Your task to perform on an android device: Show me productivity apps on the Play Store Image 0: 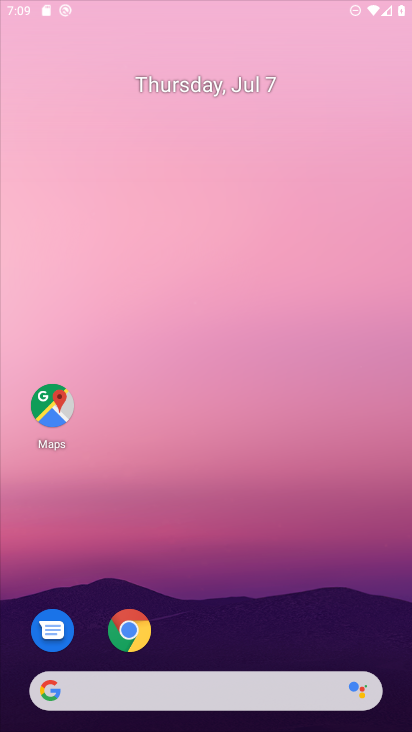
Step 0: task complete